Your task to perform on an android device: Go to eBay Image 0: 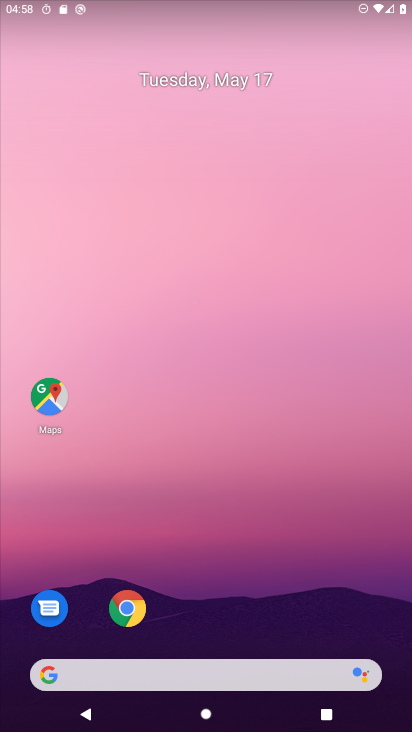
Step 0: click (130, 609)
Your task to perform on an android device: Go to eBay Image 1: 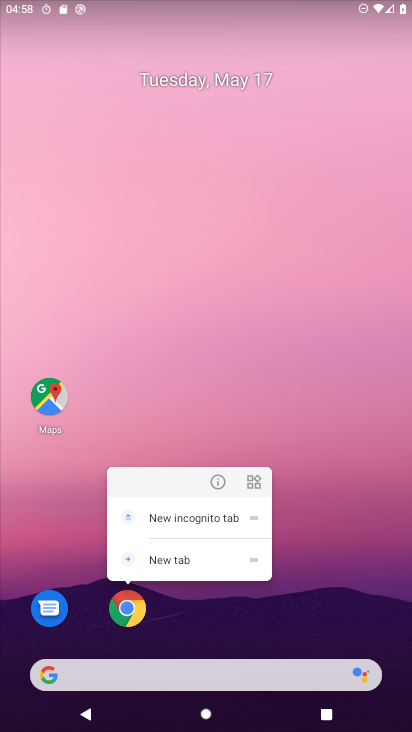
Step 1: click (130, 609)
Your task to perform on an android device: Go to eBay Image 2: 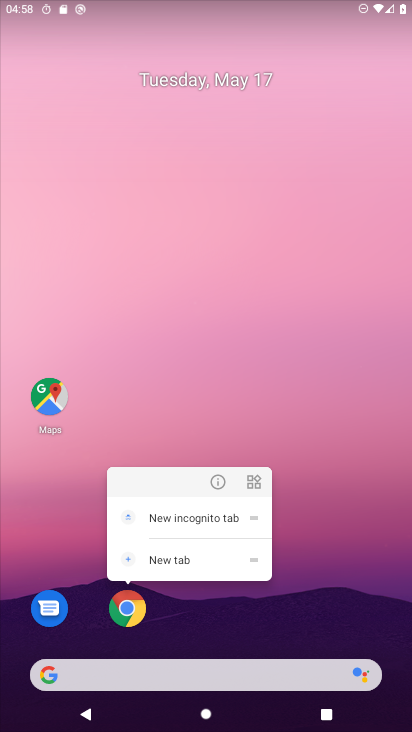
Step 2: click (122, 609)
Your task to perform on an android device: Go to eBay Image 3: 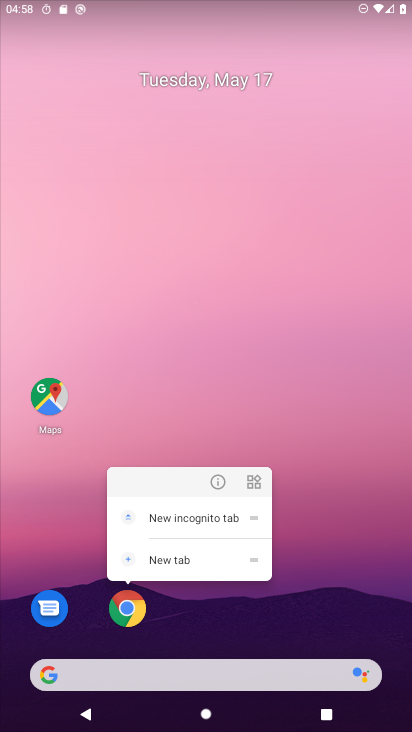
Step 3: click (122, 609)
Your task to perform on an android device: Go to eBay Image 4: 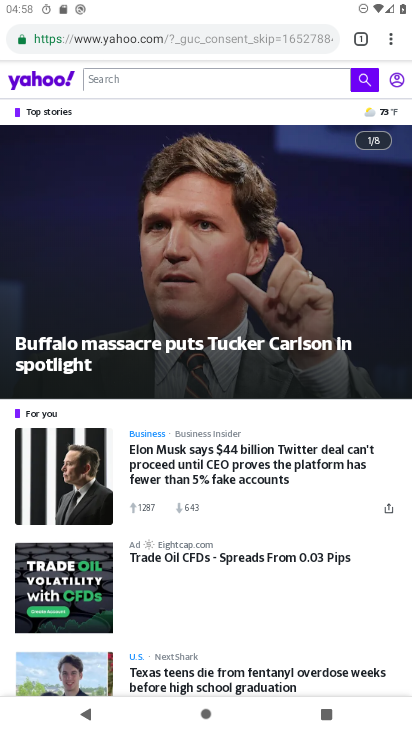
Step 4: click (364, 34)
Your task to perform on an android device: Go to eBay Image 5: 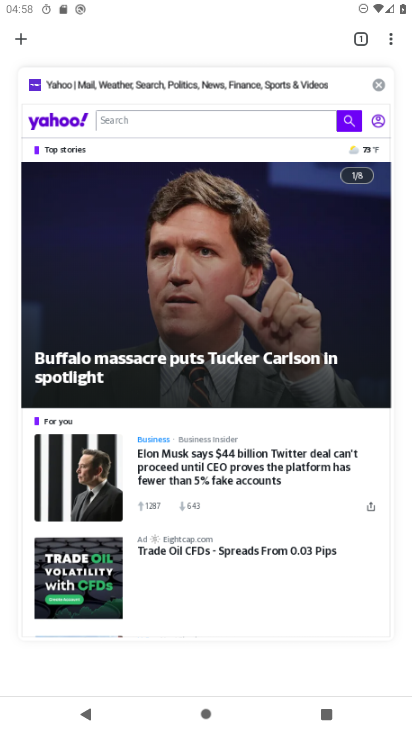
Step 5: click (381, 83)
Your task to perform on an android device: Go to eBay Image 6: 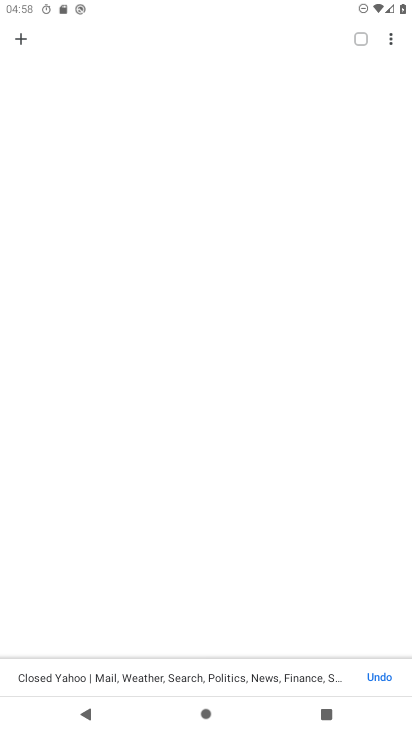
Step 6: click (18, 41)
Your task to perform on an android device: Go to eBay Image 7: 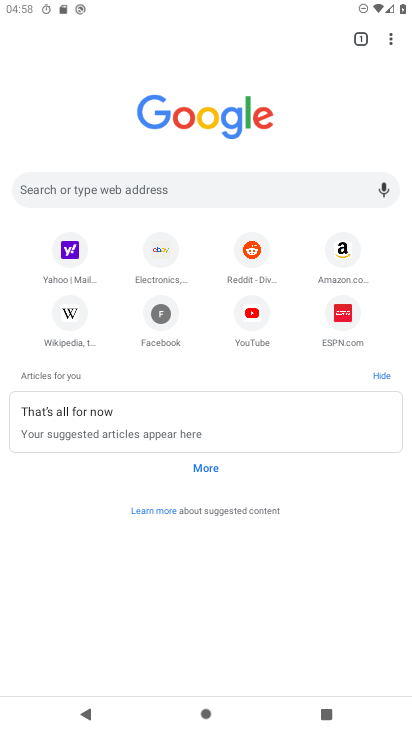
Step 7: click (165, 242)
Your task to perform on an android device: Go to eBay Image 8: 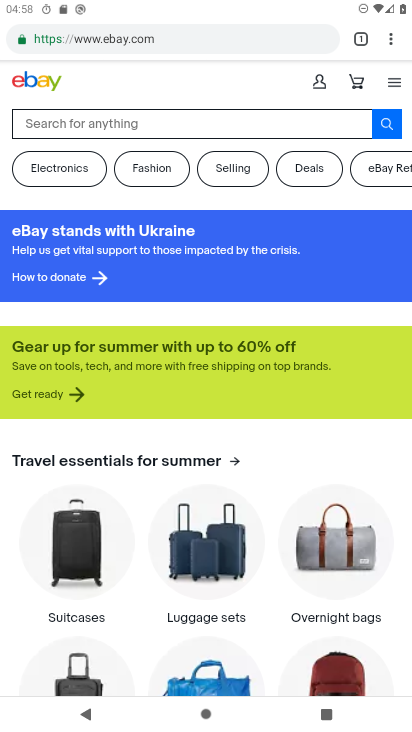
Step 8: task complete